Your task to perform on an android device: Show me popular games on the Play Store Image 0: 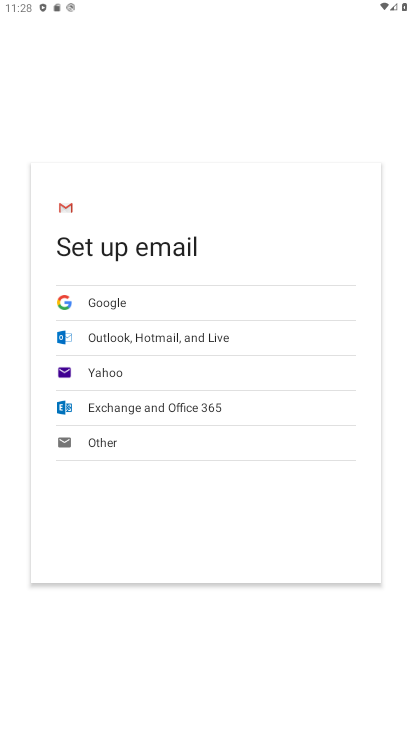
Step 0: task complete